Your task to perform on an android device: Do I have any events this weekend? Image 0: 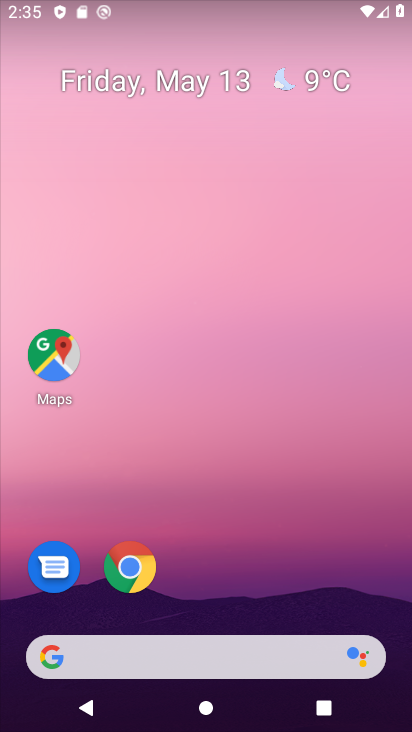
Step 0: drag from (355, 609) to (381, 65)
Your task to perform on an android device: Do I have any events this weekend? Image 1: 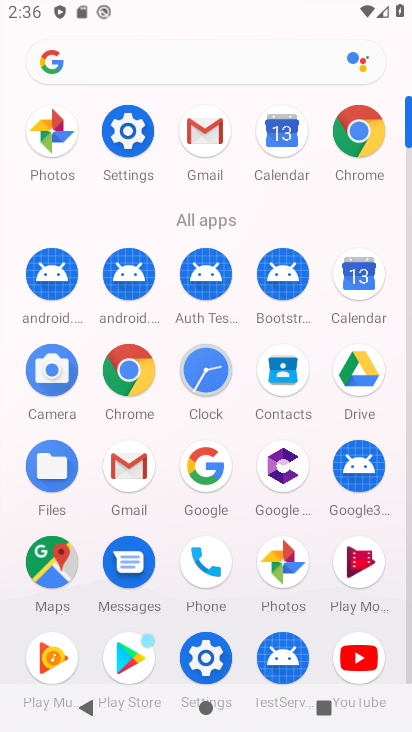
Step 1: click (284, 143)
Your task to perform on an android device: Do I have any events this weekend? Image 2: 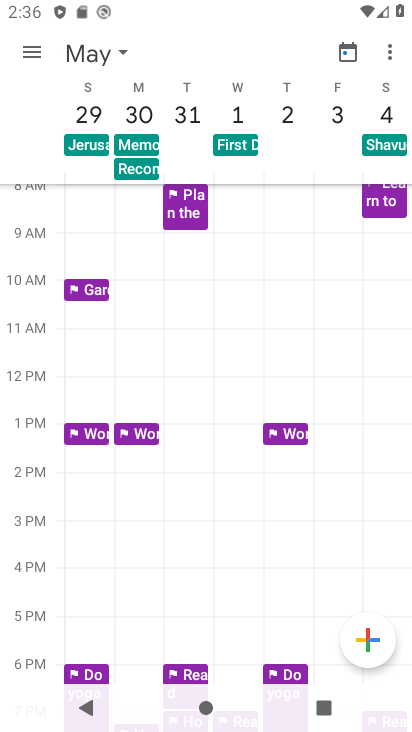
Step 2: click (348, 49)
Your task to perform on an android device: Do I have any events this weekend? Image 3: 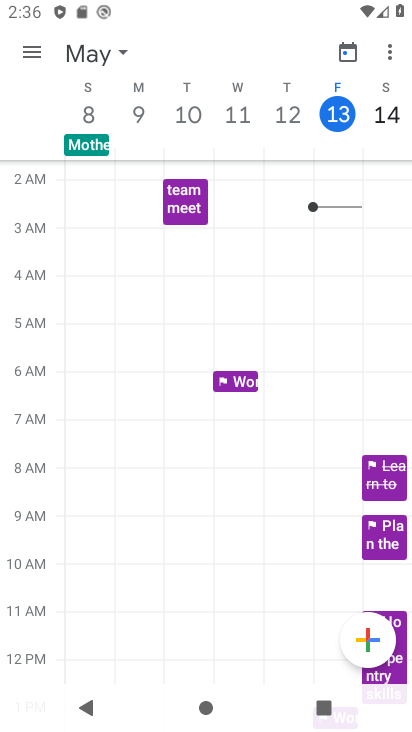
Step 3: click (29, 49)
Your task to perform on an android device: Do I have any events this weekend? Image 4: 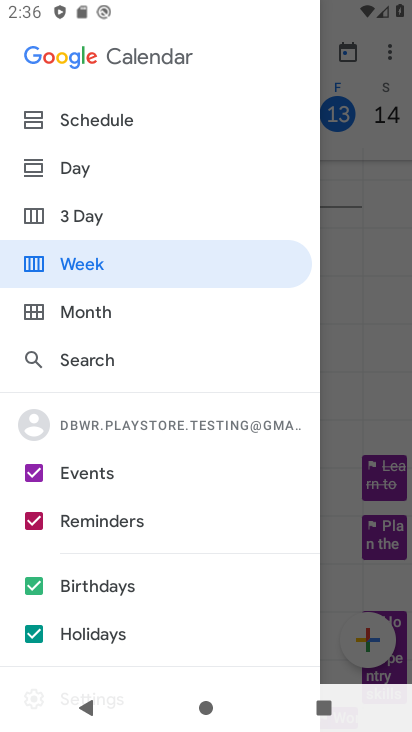
Step 4: click (32, 524)
Your task to perform on an android device: Do I have any events this weekend? Image 5: 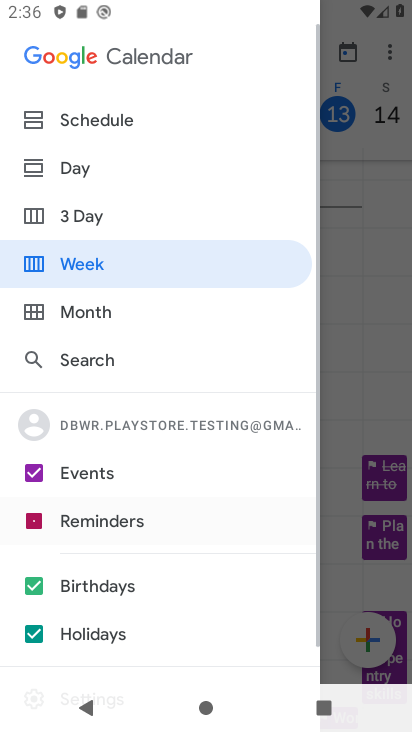
Step 5: click (35, 580)
Your task to perform on an android device: Do I have any events this weekend? Image 6: 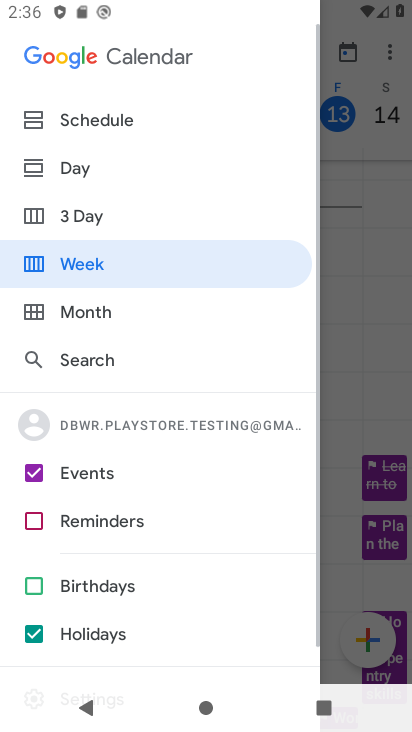
Step 6: click (34, 633)
Your task to perform on an android device: Do I have any events this weekend? Image 7: 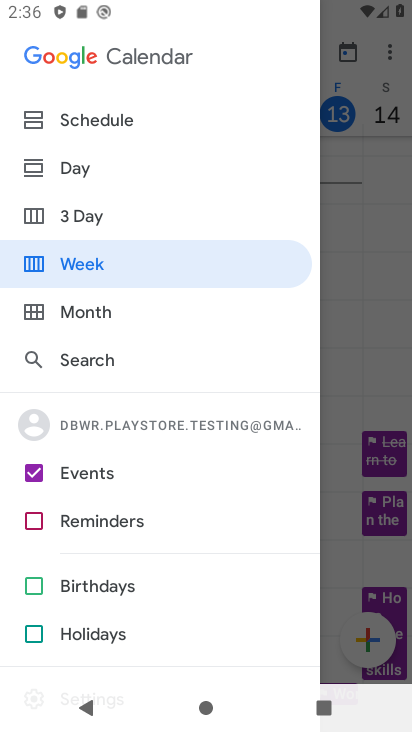
Step 7: click (47, 260)
Your task to perform on an android device: Do I have any events this weekend? Image 8: 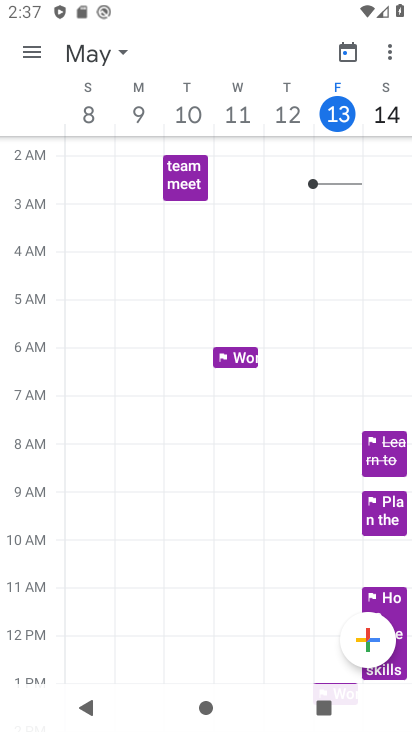
Step 8: task complete